Your task to perform on an android device: create a new album in the google photos Image 0: 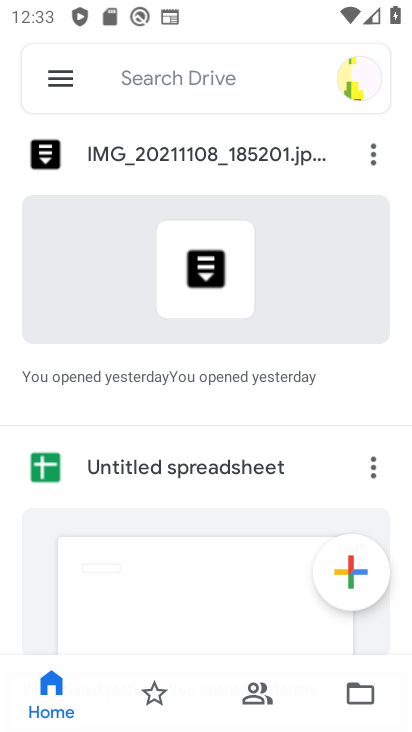
Step 0: press home button
Your task to perform on an android device: create a new album in the google photos Image 1: 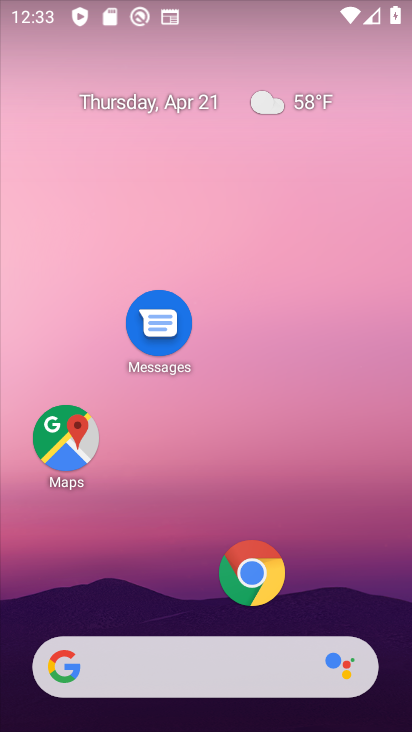
Step 1: drag from (181, 550) to (175, 91)
Your task to perform on an android device: create a new album in the google photos Image 2: 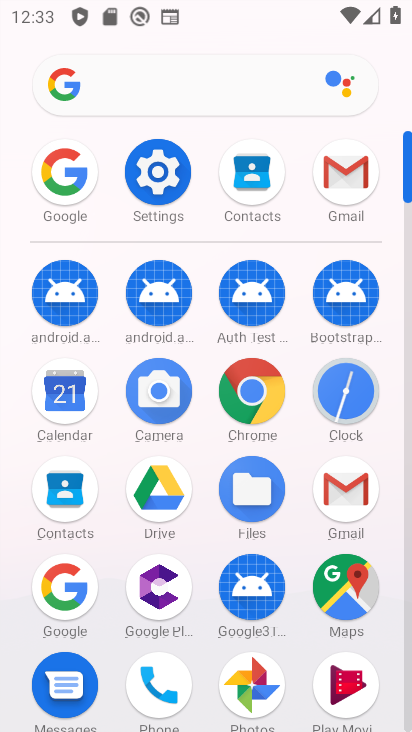
Step 2: click (251, 687)
Your task to perform on an android device: create a new album in the google photos Image 3: 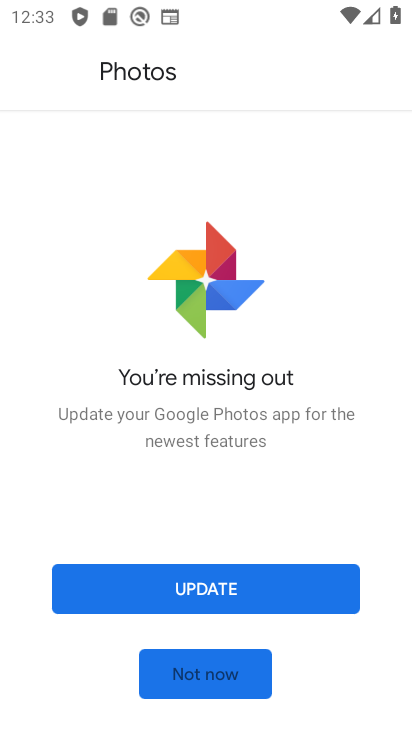
Step 3: click (209, 664)
Your task to perform on an android device: create a new album in the google photos Image 4: 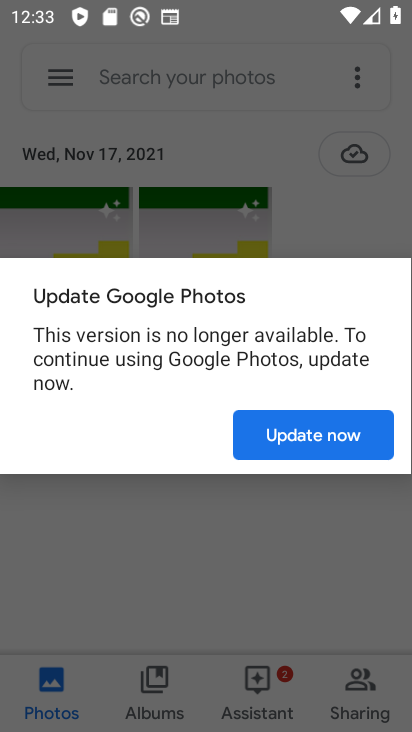
Step 4: click (312, 429)
Your task to perform on an android device: create a new album in the google photos Image 5: 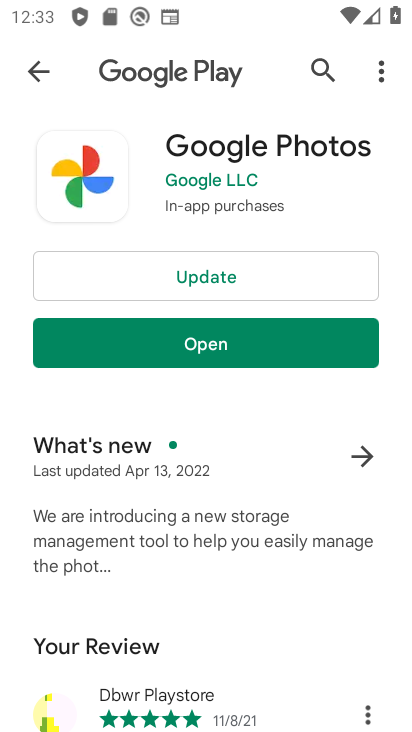
Step 5: click (181, 344)
Your task to perform on an android device: create a new album in the google photos Image 6: 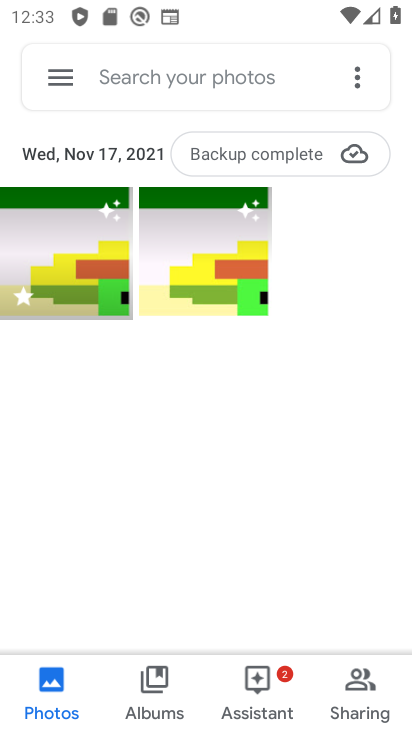
Step 6: click (149, 701)
Your task to perform on an android device: create a new album in the google photos Image 7: 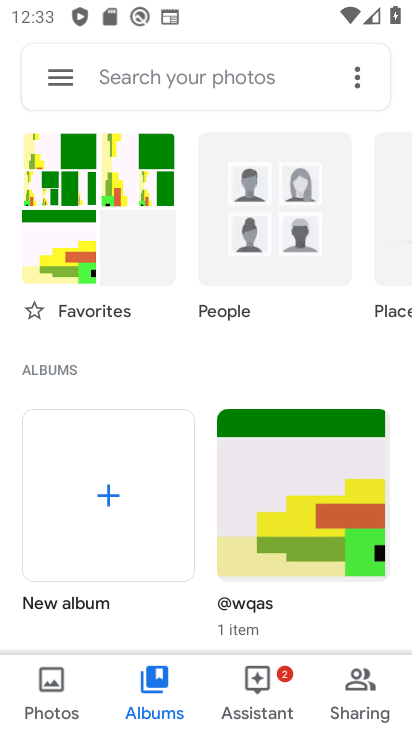
Step 7: click (108, 501)
Your task to perform on an android device: create a new album in the google photos Image 8: 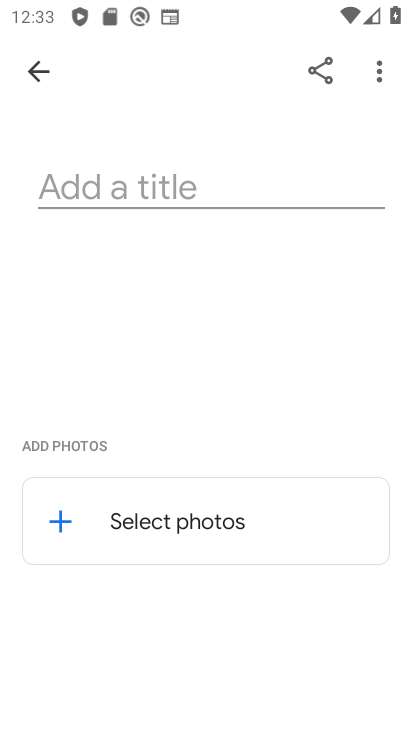
Step 8: click (68, 520)
Your task to perform on an android device: create a new album in the google photos Image 9: 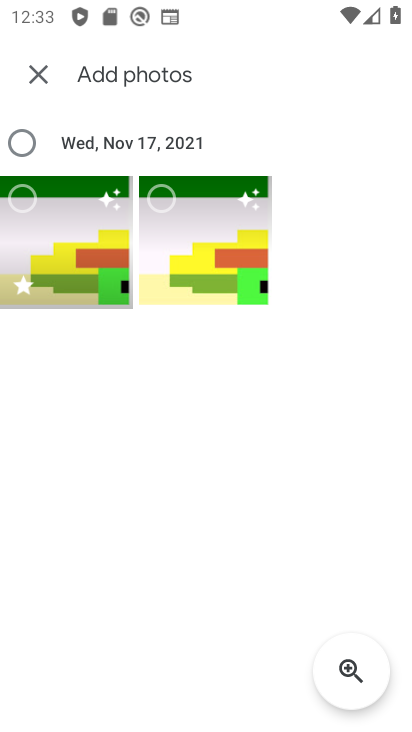
Step 9: click (158, 194)
Your task to perform on an android device: create a new album in the google photos Image 10: 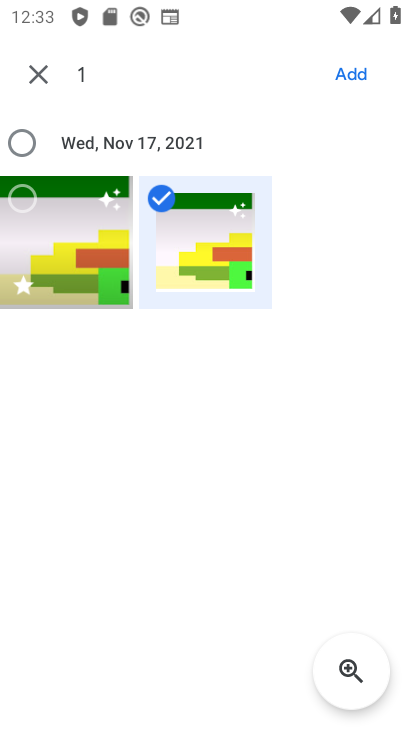
Step 10: click (349, 83)
Your task to perform on an android device: create a new album in the google photos Image 11: 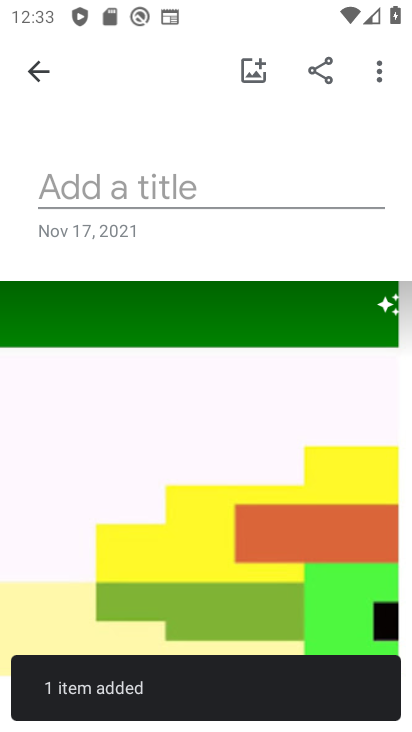
Step 11: click (161, 188)
Your task to perform on an android device: create a new album in the google photos Image 12: 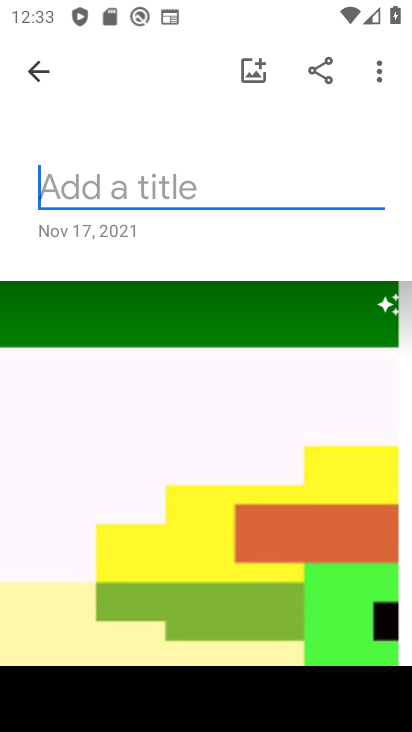
Step 12: type "bv"
Your task to perform on an android device: create a new album in the google photos Image 13: 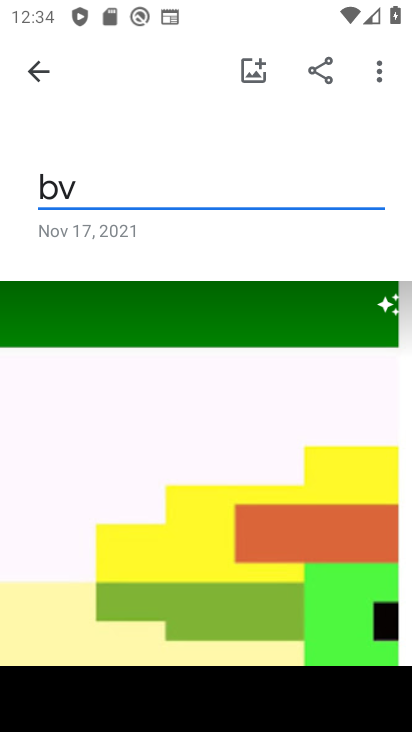
Step 13: click (373, 68)
Your task to perform on an android device: create a new album in the google photos Image 14: 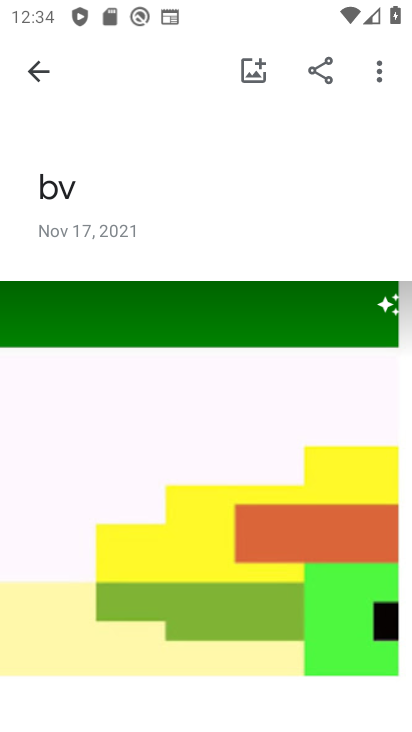
Step 14: task complete